Your task to perform on an android device: refresh tabs in the chrome app Image 0: 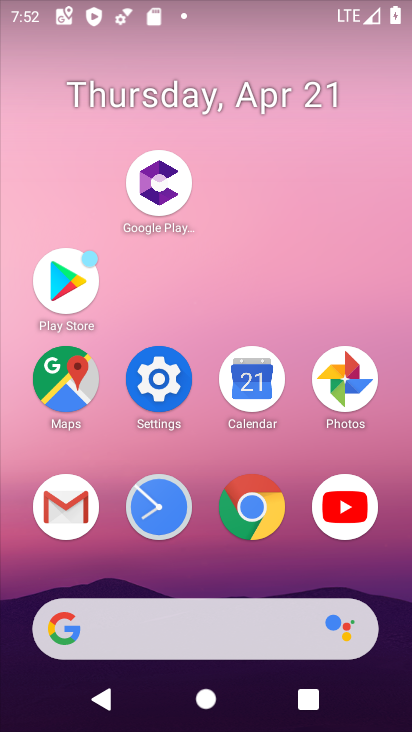
Step 0: click (255, 527)
Your task to perform on an android device: refresh tabs in the chrome app Image 1: 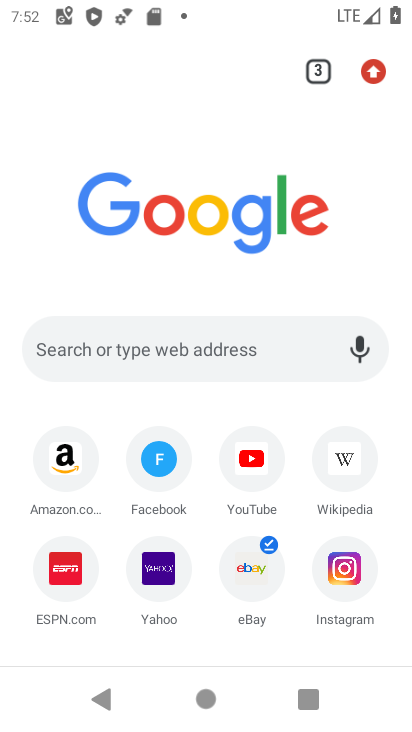
Step 1: click (375, 67)
Your task to perform on an android device: refresh tabs in the chrome app Image 2: 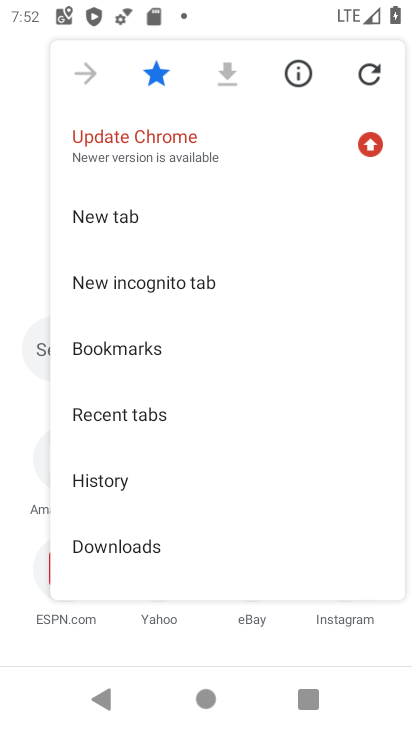
Step 2: click (375, 67)
Your task to perform on an android device: refresh tabs in the chrome app Image 3: 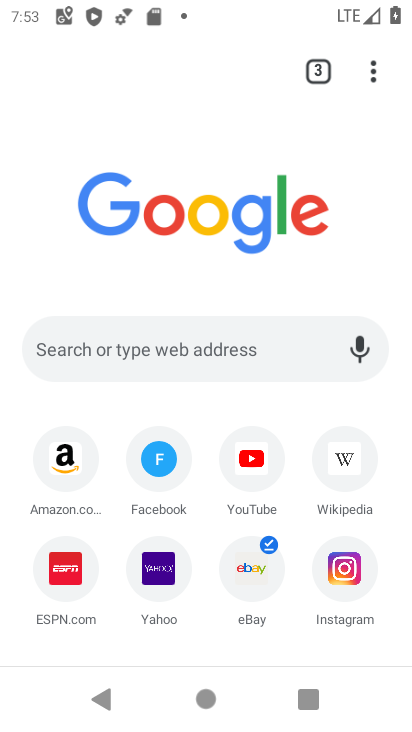
Step 3: task complete